Your task to perform on an android device: Open battery settings Image 0: 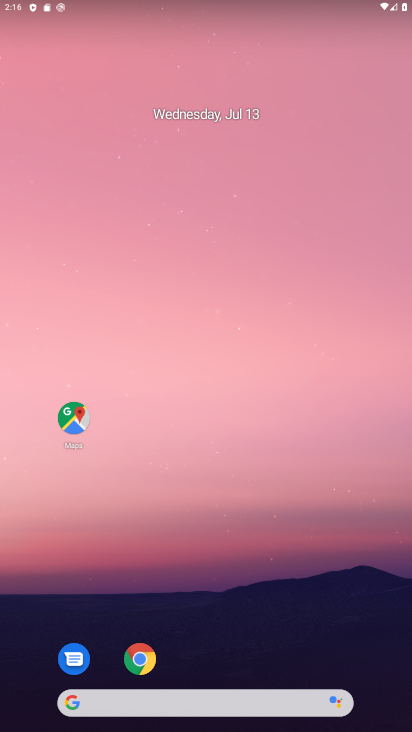
Step 0: drag from (220, 667) to (223, 120)
Your task to perform on an android device: Open battery settings Image 1: 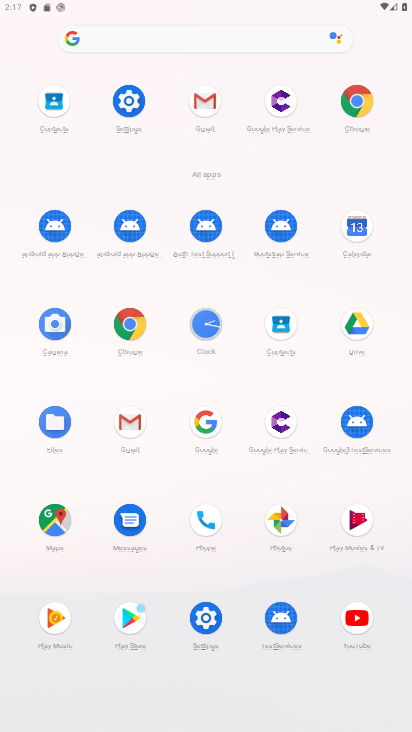
Step 1: click (127, 92)
Your task to perform on an android device: Open battery settings Image 2: 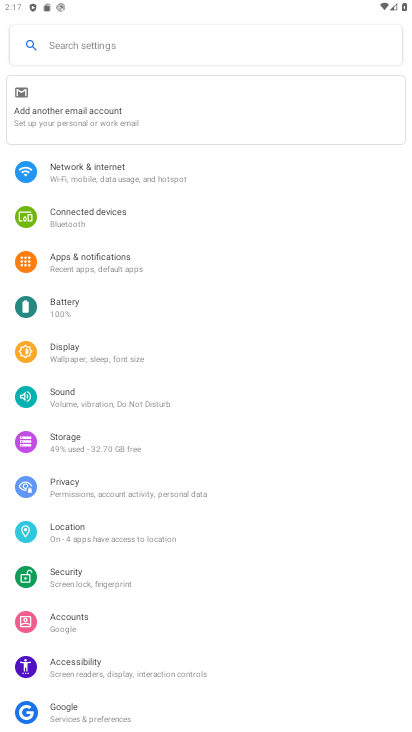
Step 2: click (97, 307)
Your task to perform on an android device: Open battery settings Image 3: 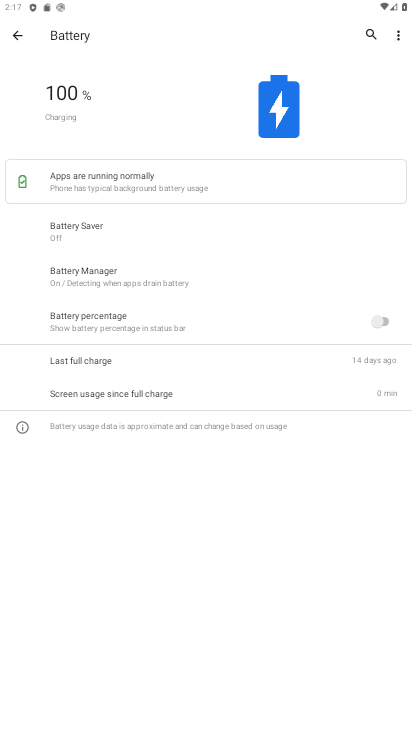
Step 3: click (404, 24)
Your task to perform on an android device: Open battery settings Image 4: 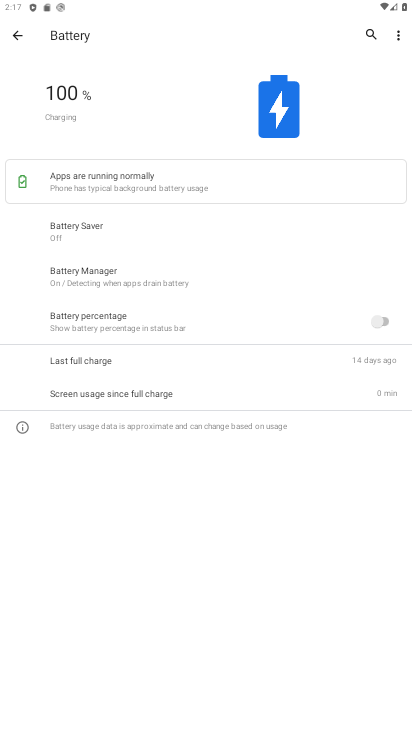
Step 4: click (396, 34)
Your task to perform on an android device: Open battery settings Image 5: 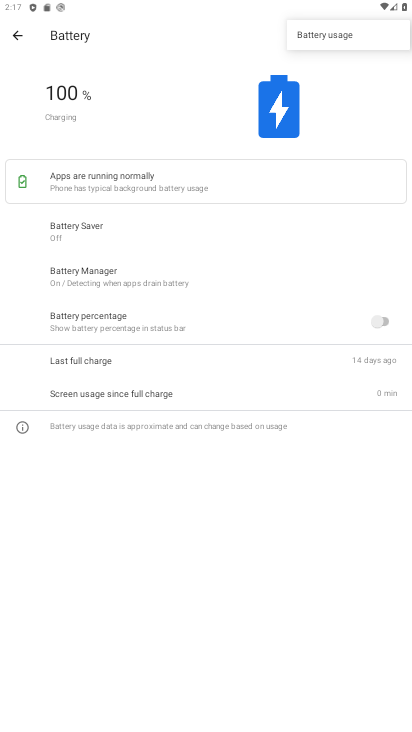
Step 5: click (161, 566)
Your task to perform on an android device: Open battery settings Image 6: 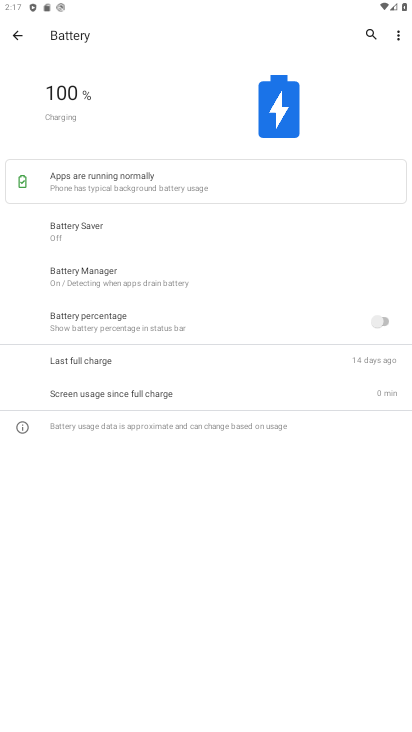
Step 6: task complete